Your task to perform on an android device: Go to ESPN.com Image 0: 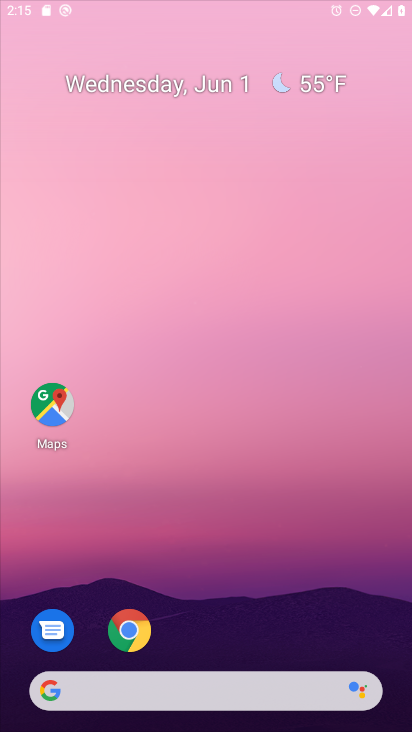
Step 0: click (388, 226)
Your task to perform on an android device: Go to ESPN.com Image 1: 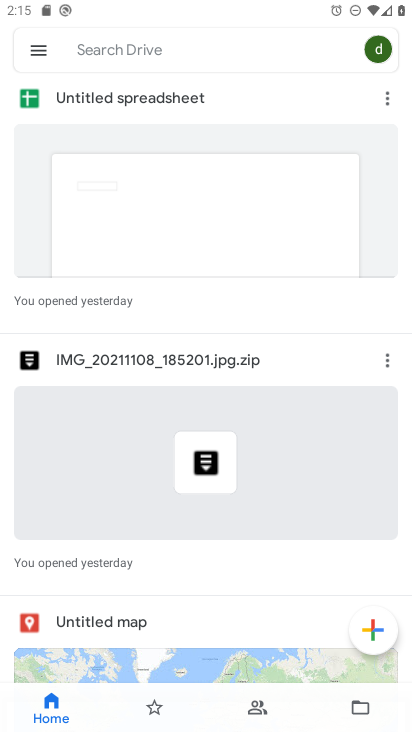
Step 1: press home button
Your task to perform on an android device: Go to ESPN.com Image 2: 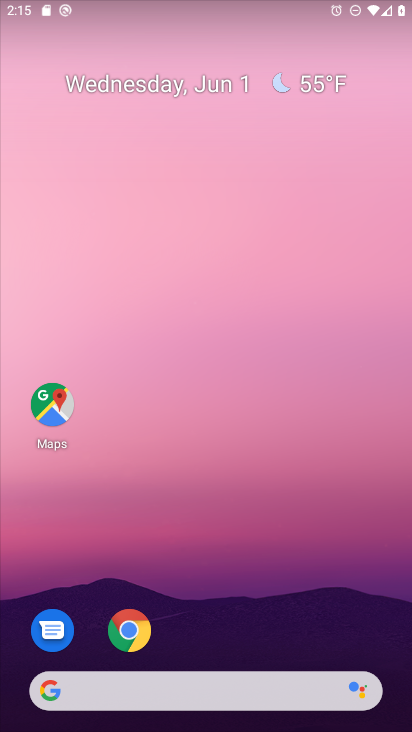
Step 2: drag from (307, 648) to (397, 64)
Your task to perform on an android device: Go to ESPN.com Image 3: 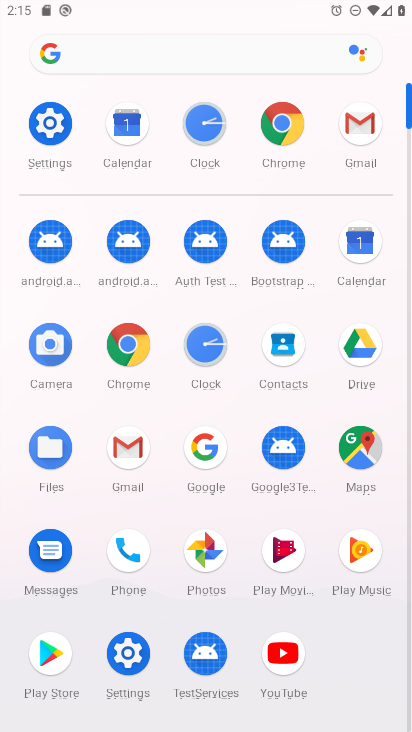
Step 3: click (122, 333)
Your task to perform on an android device: Go to ESPN.com Image 4: 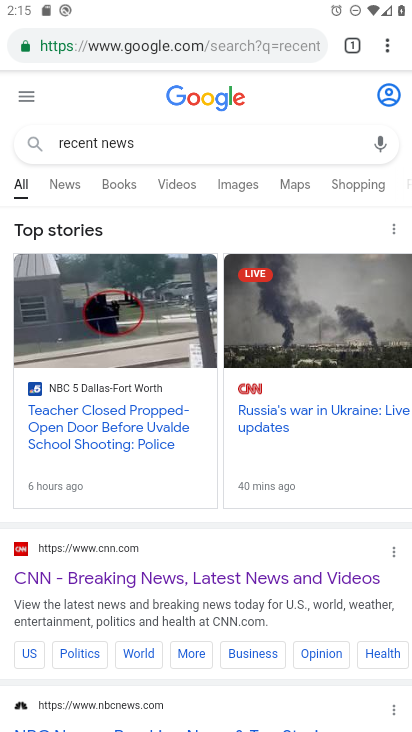
Step 4: click (255, 47)
Your task to perform on an android device: Go to ESPN.com Image 5: 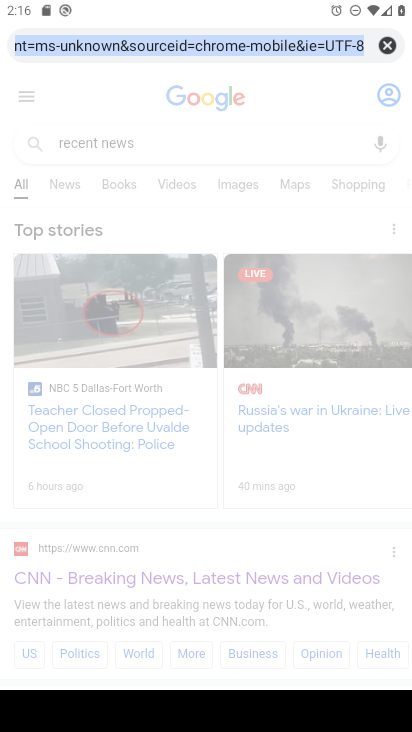
Step 5: type "espn.com"
Your task to perform on an android device: Go to ESPN.com Image 6: 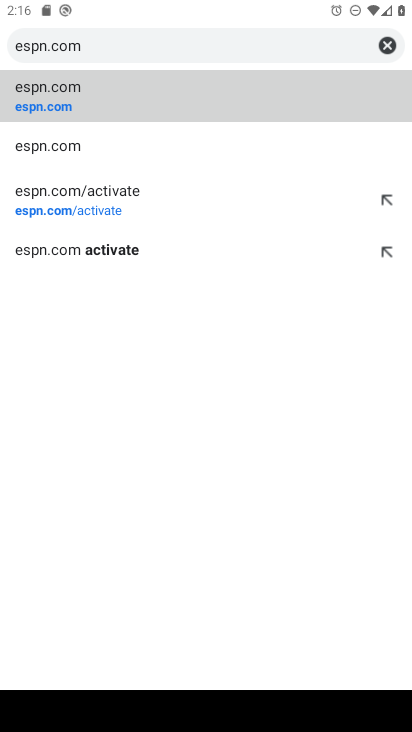
Step 6: click (93, 93)
Your task to perform on an android device: Go to ESPN.com Image 7: 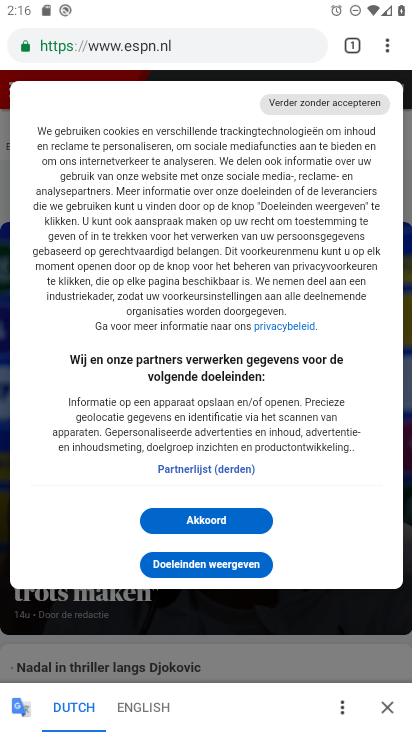
Step 7: task complete